Your task to perform on an android device: Open Wikipedia Image 0: 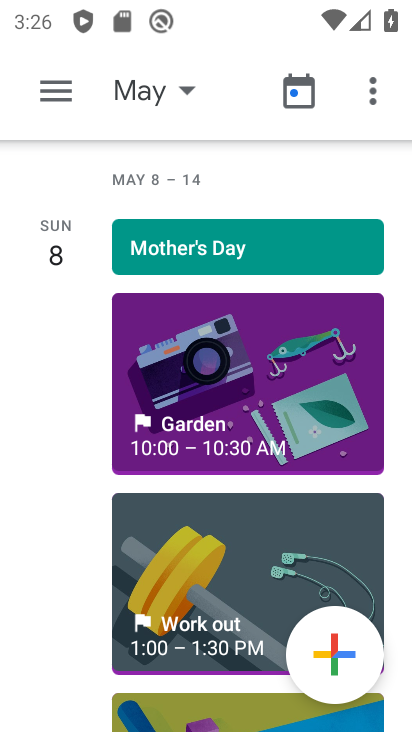
Step 0: press home button
Your task to perform on an android device: Open Wikipedia Image 1: 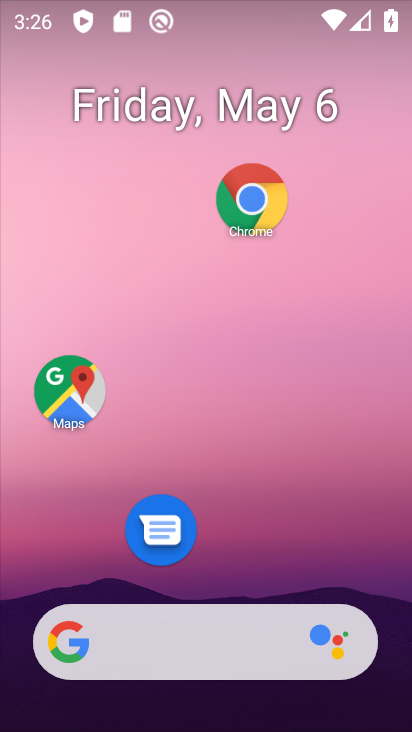
Step 1: drag from (295, 579) to (259, 344)
Your task to perform on an android device: Open Wikipedia Image 2: 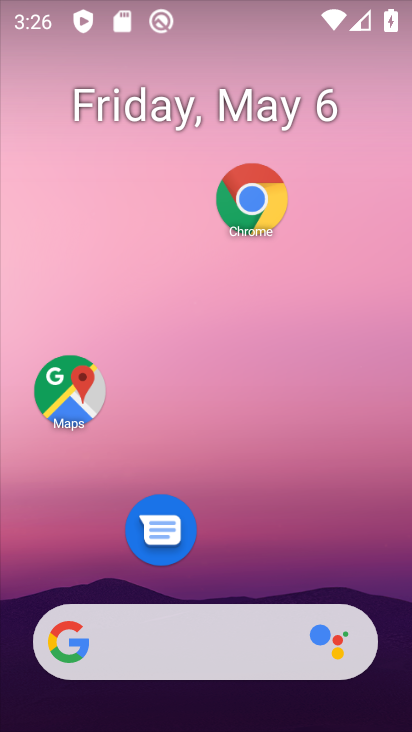
Step 2: drag from (281, 592) to (271, 309)
Your task to perform on an android device: Open Wikipedia Image 3: 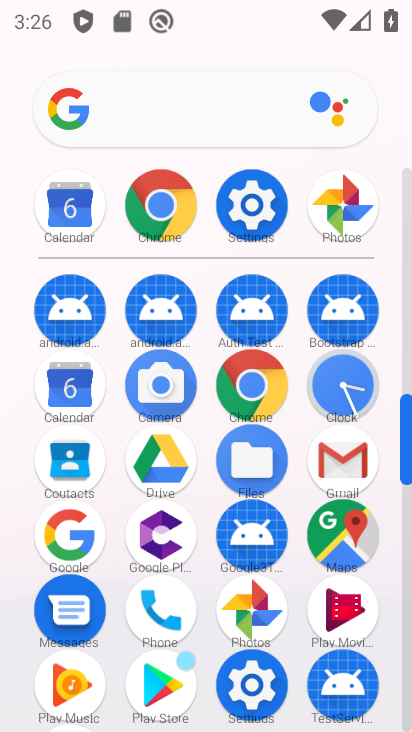
Step 3: click (244, 223)
Your task to perform on an android device: Open Wikipedia Image 4: 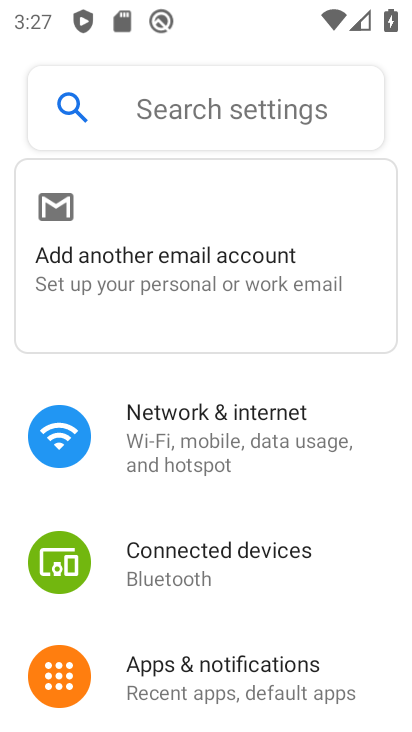
Step 4: press home button
Your task to perform on an android device: Open Wikipedia Image 5: 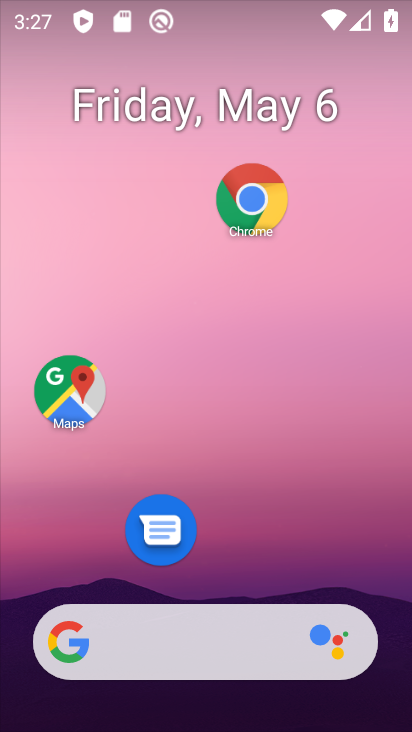
Step 5: click (276, 197)
Your task to perform on an android device: Open Wikipedia Image 6: 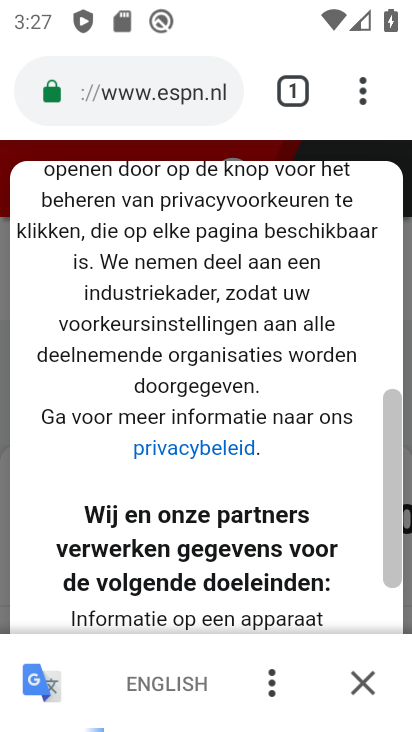
Step 6: click (212, 95)
Your task to perform on an android device: Open Wikipedia Image 7: 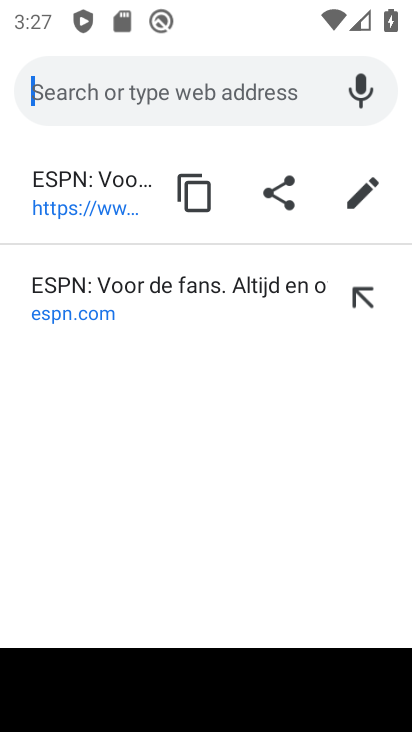
Step 7: type "wikipedia"
Your task to perform on an android device: Open Wikipedia Image 8: 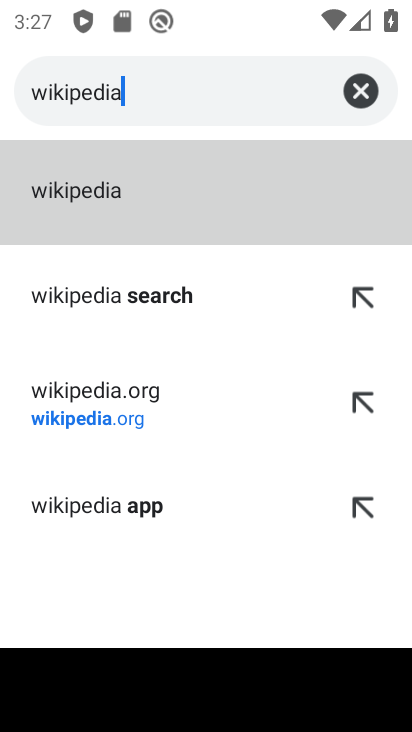
Step 8: click (144, 397)
Your task to perform on an android device: Open Wikipedia Image 9: 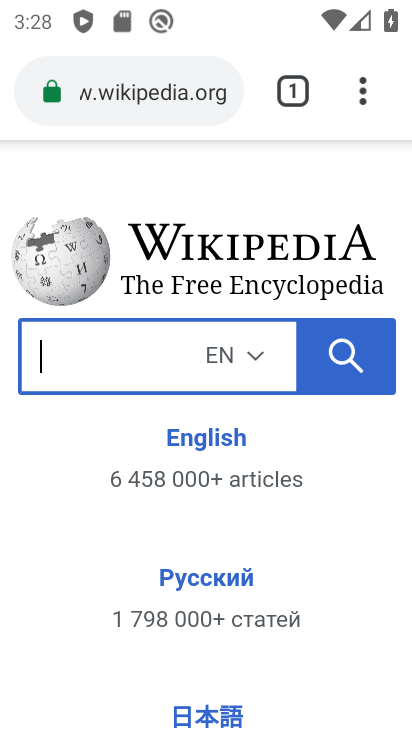
Step 9: task complete